Your task to perform on an android device: remove spam from my inbox in the gmail app Image 0: 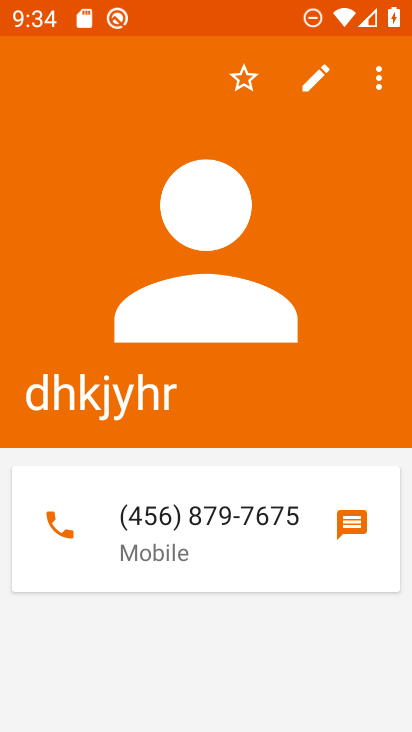
Step 0: press home button
Your task to perform on an android device: remove spam from my inbox in the gmail app Image 1: 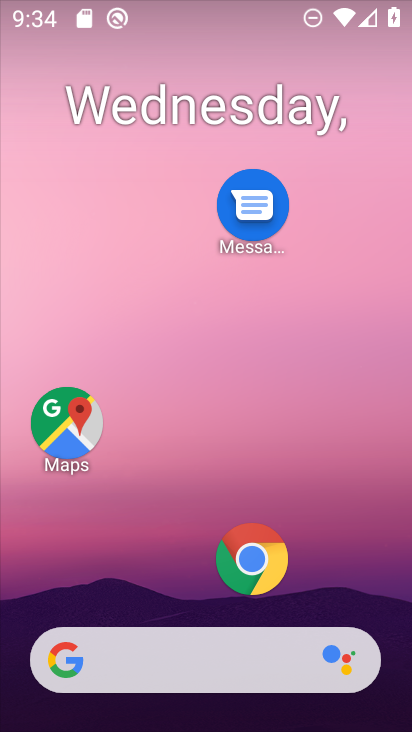
Step 1: drag from (206, 581) to (337, 76)
Your task to perform on an android device: remove spam from my inbox in the gmail app Image 2: 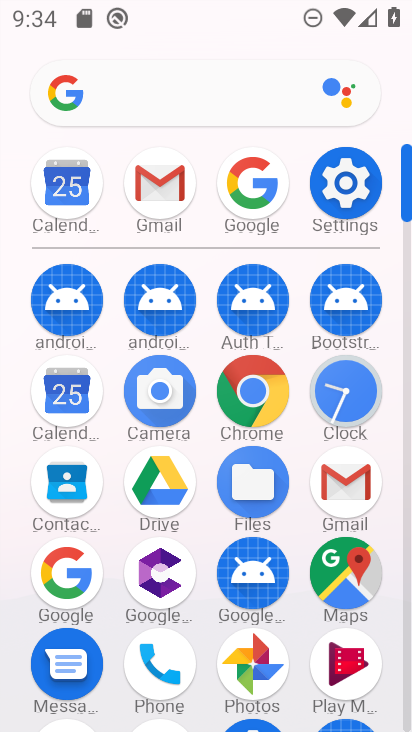
Step 2: click (342, 491)
Your task to perform on an android device: remove spam from my inbox in the gmail app Image 3: 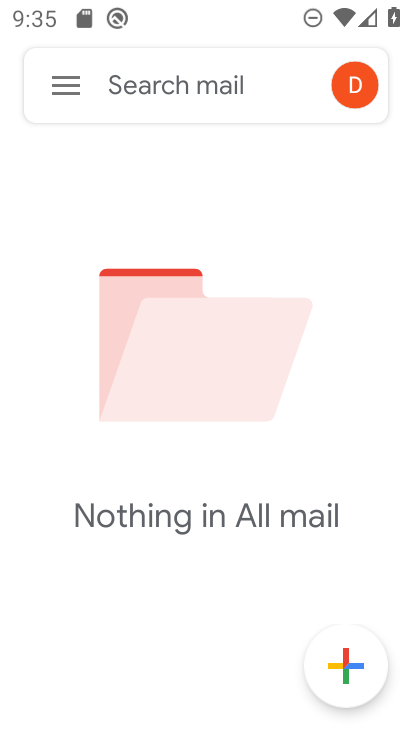
Step 3: click (58, 87)
Your task to perform on an android device: remove spam from my inbox in the gmail app Image 4: 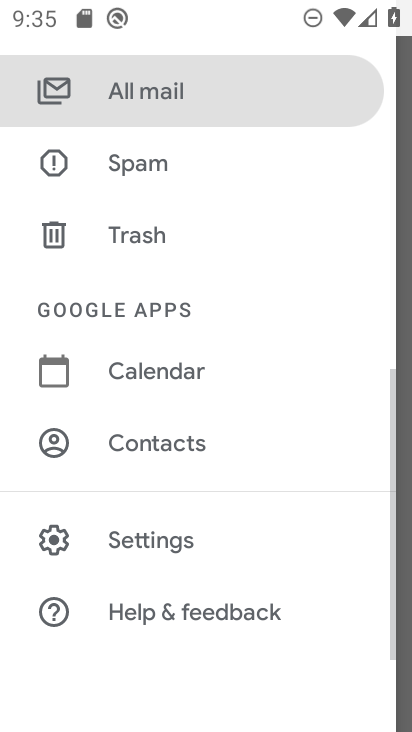
Step 4: drag from (154, 316) to (165, 481)
Your task to perform on an android device: remove spam from my inbox in the gmail app Image 5: 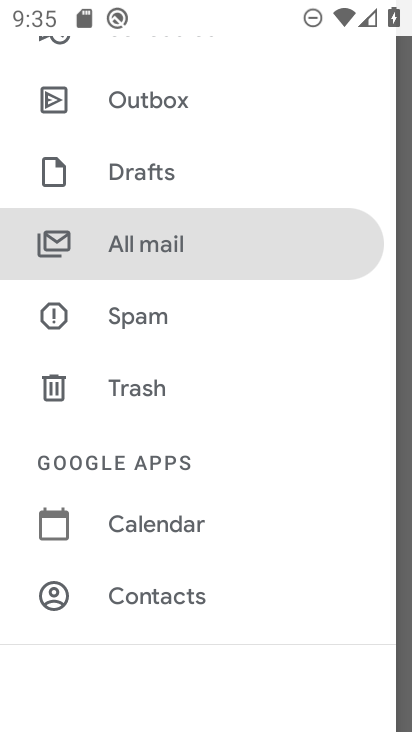
Step 5: click (168, 336)
Your task to perform on an android device: remove spam from my inbox in the gmail app Image 6: 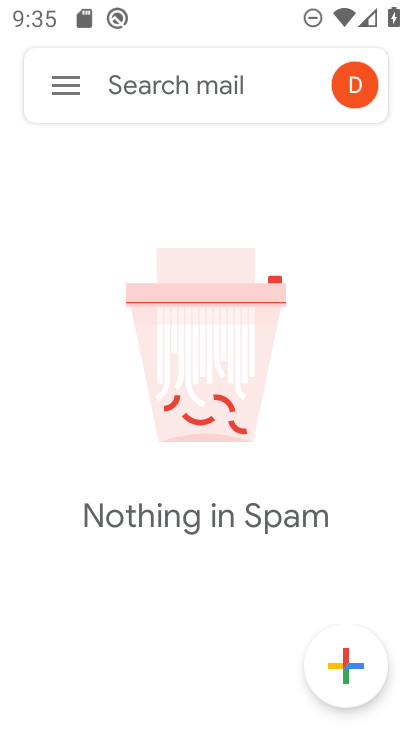
Step 6: task complete